Your task to perform on an android device: Check the news Image 0: 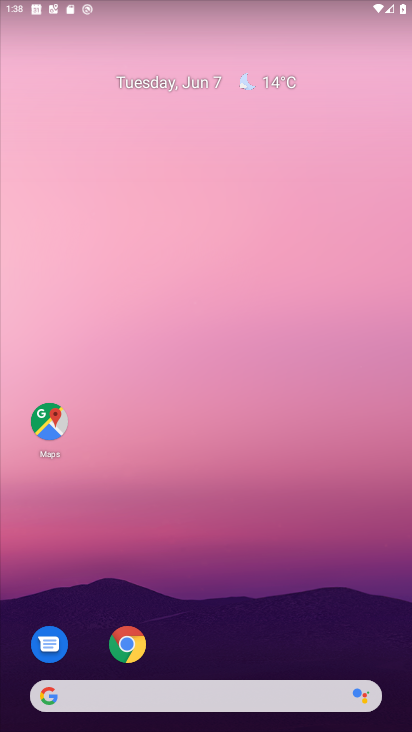
Step 0: drag from (275, 641) to (235, 7)
Your task to perform on an android device: Check the news Image 1: 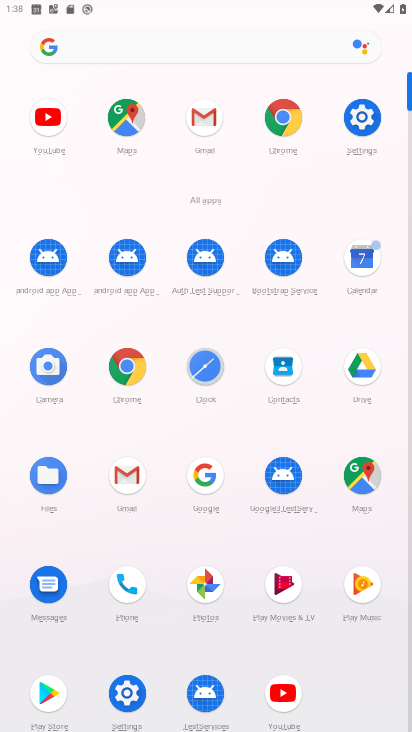
Step 1: click (149, 36)
Your task to perform on an android device: Check the news Image 2: 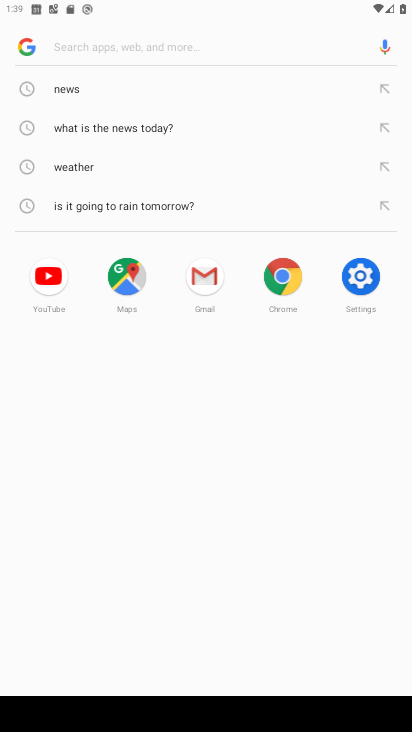
Step 2: type "news"
Your task to perform on an android device: Check the news Image 3: 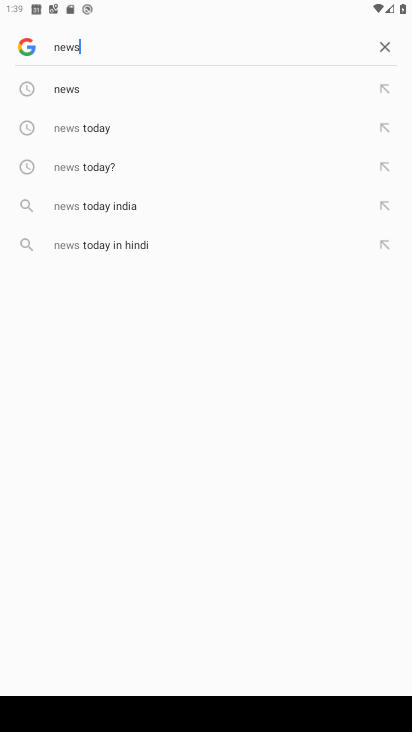
Step 3: click (89, 95)
Your task to perform on an android device: Check the news Image 4: 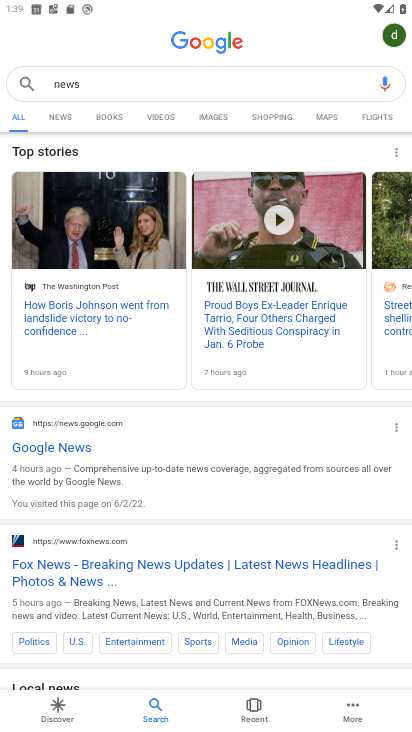
Step 4: click (68, 116)
Your task to perform on an android device: Check the news Image 5: 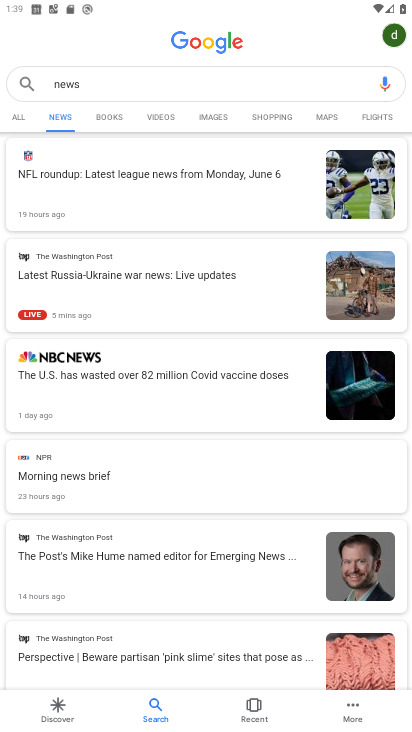
Step 5: task complete